Your task to perform on an android device: open a bookmark in the chrome app Image 0: 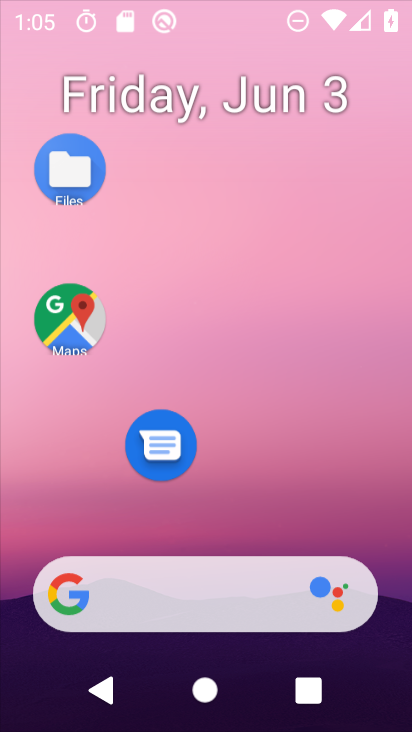
Step 0: click (246, 267)
Your task to perform on an android device: open a bookmark in the chrome app Image 1: 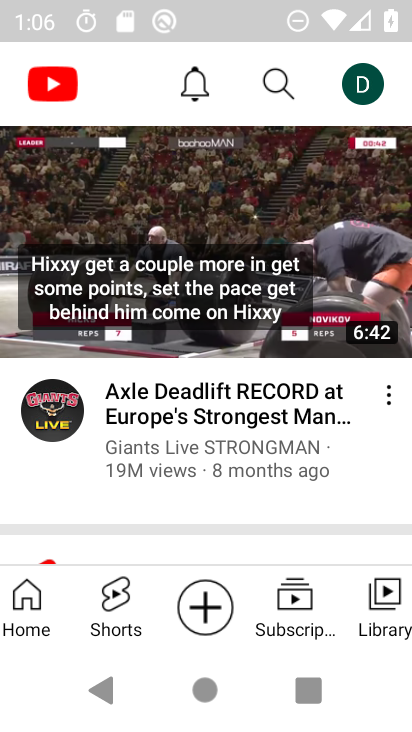
Step 1: press back button
Your task to perform on an android device: open a bookmark in the chrome app Image 2: 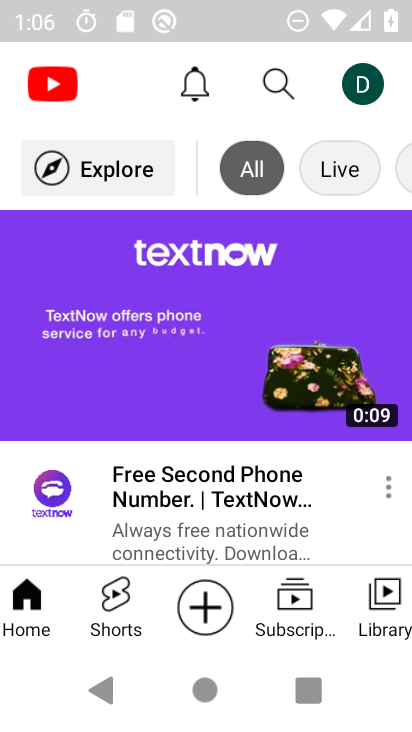
Step 2: press home button
Your task to perform on an android device: open a bookmark in the chrome app Image 3: 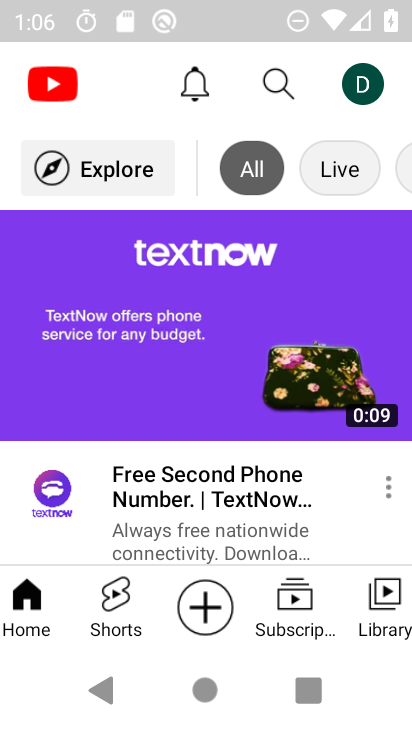
Step 3: press home button
Your task to perform on an android device: open a bookmark in the chrome app Image 4: 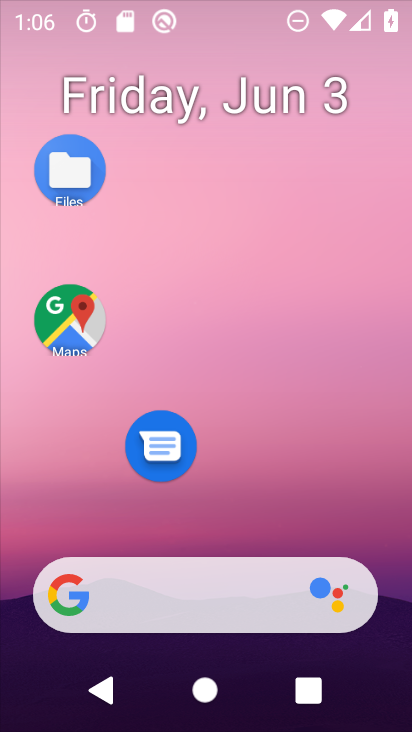
Step 4: press home button
Your task to perform on an android device: open a bookmark in the chrome app Image 5: 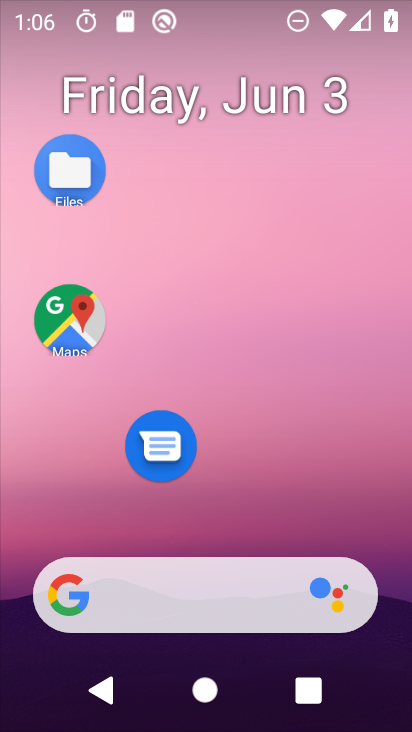
Step 5: drag from (257, 678) to (146, 199)
Your task to perform on an android device: open a bookmark in the chrome app Image 6: 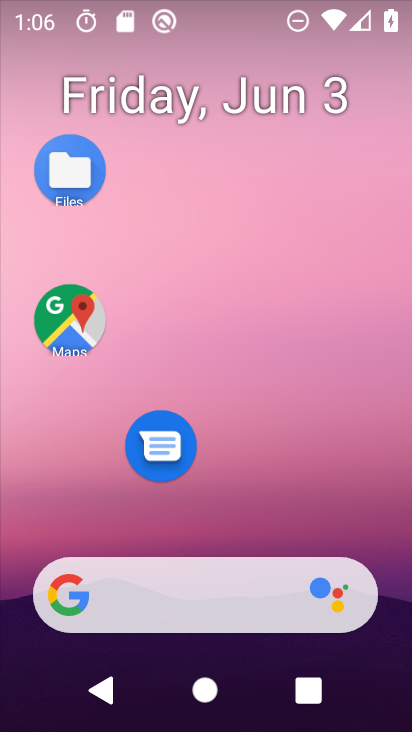
Step 6: drag from (230, 580) to (148, 294)
Your task to perform on an android device: open a bookmark in the chrome app Image 7: 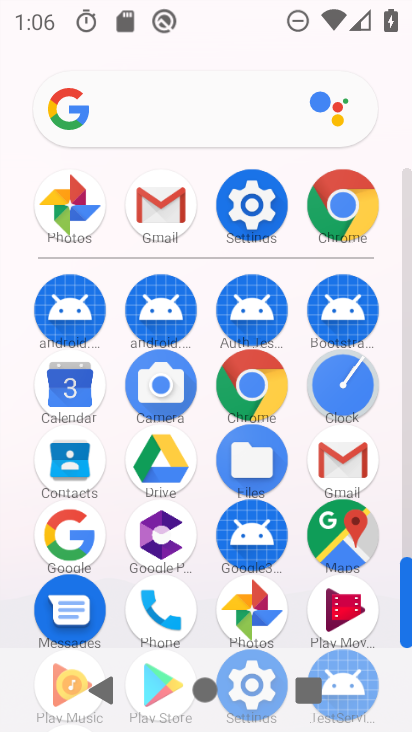
Step 7: drag from (264, 631) to (186, 103)
Your task to perform on an android device: open a bookmark in the chrome app Image 8: 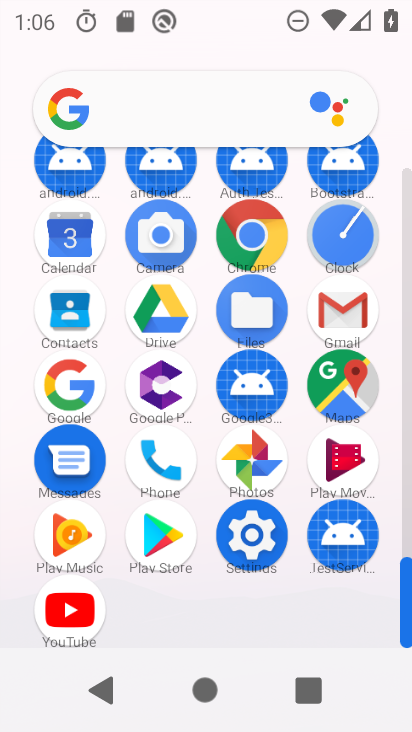
Step 8: click (252, 236)
Your task to perform on an android device: open a bookmark in the chrome app Image 9: 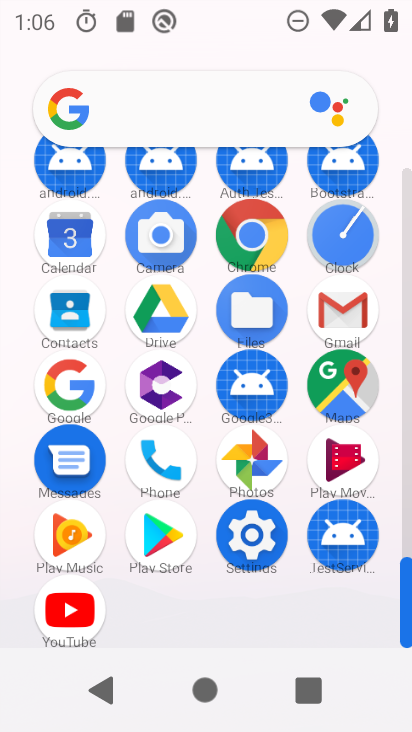
Step 9: click (252, 236)
Your task to perform on an android device: open a bookmark in the chrome app Image 10: 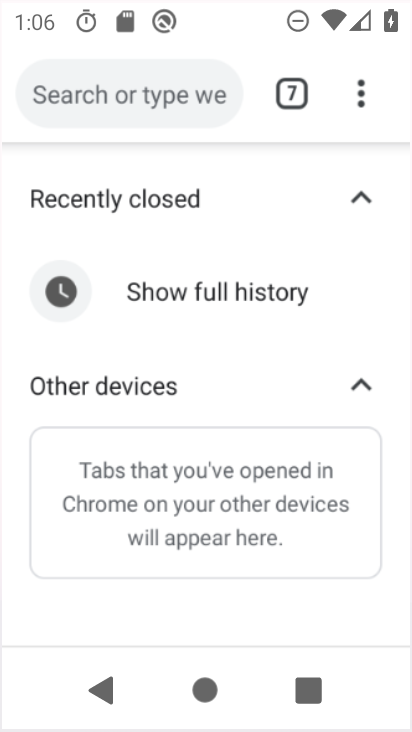
Step 10: click (252, 236)
Your task to perform on an android device: open a bookmark in the chrome app Image 11: 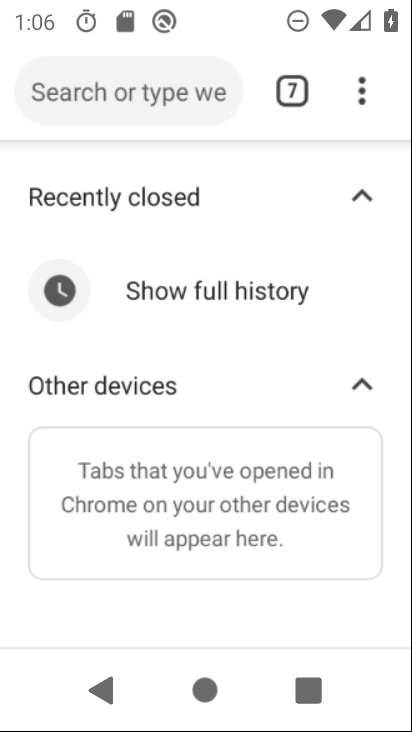
Step 11: click (252, 237)
Your task to perform on an android device: open a bookmark in the chrome app Image 12: 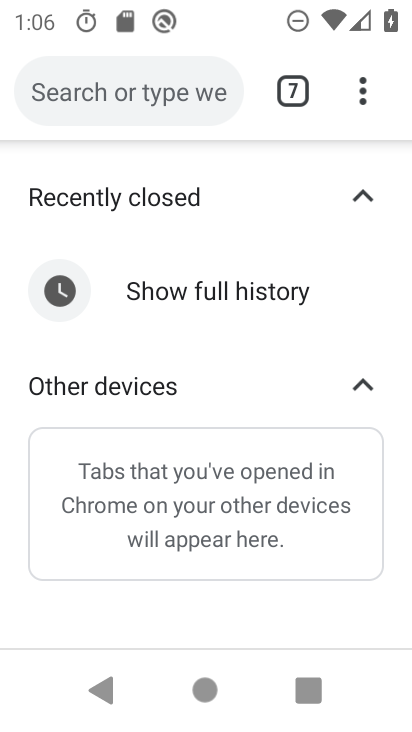
Step 12: drag from (353, 98) to (95, 354)
Your task to perform on an android device: open a bookmark in the chrome app Image 13: 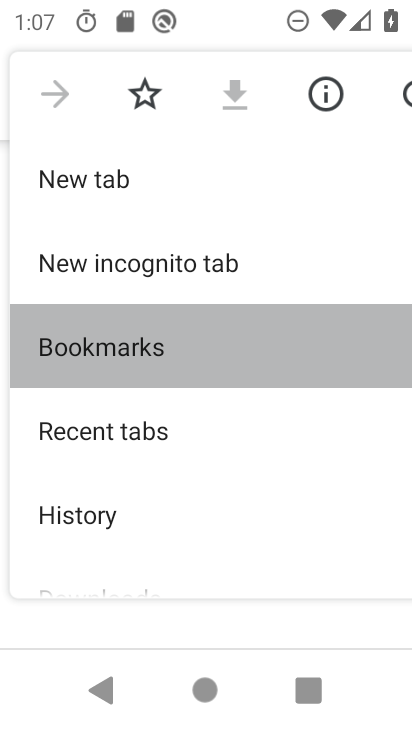
Step 13: click (95, 354)
Your task to perform on an android device: open a bookmark in the chrome app Image 14: 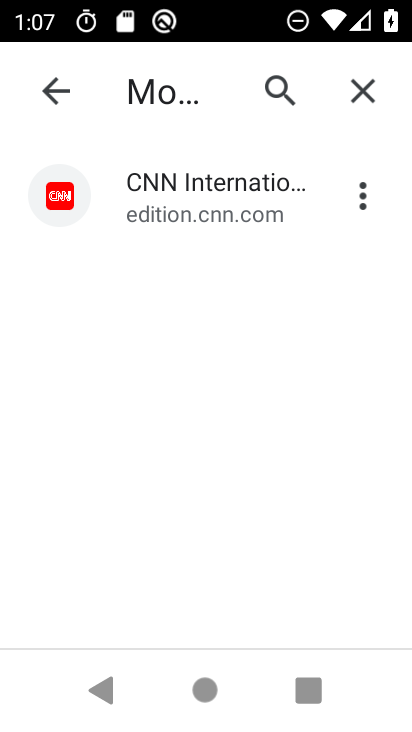
Step 14: click (97, 352)
Your task to perform on an android device: open a bookmark in the chrome app Image 15: 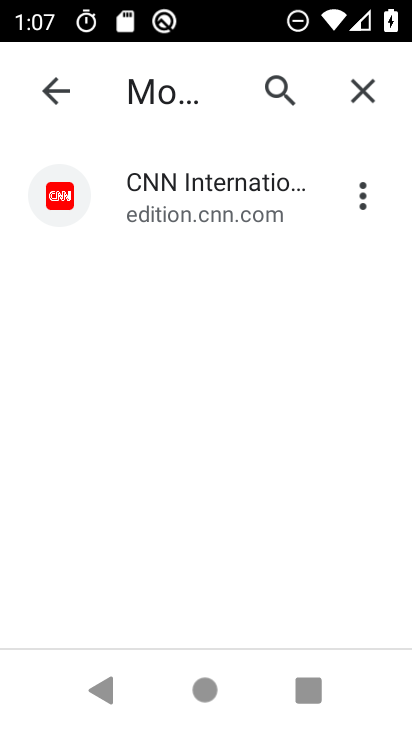
Step 15: task complete